Your task to perform on an android device: Search for pizza restaurants on Maps Image 0: 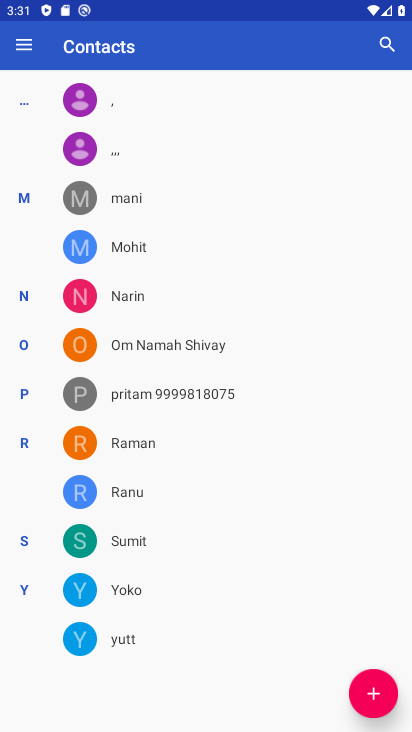
Step 0: press home button
Your task to perform on an android device: Search for pizza restaurants on Maps Image 1: 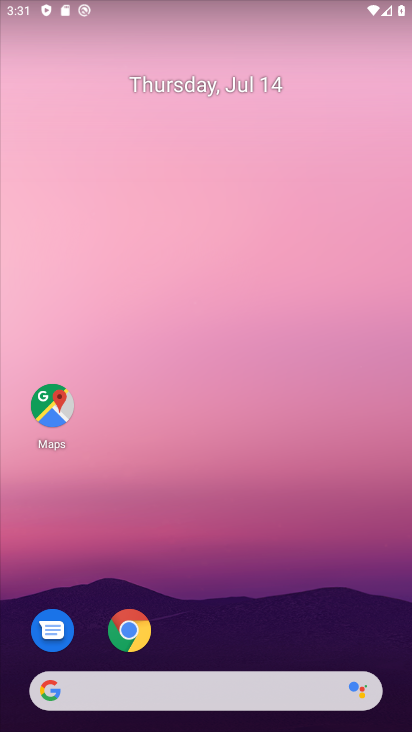
Step 1: drag from (224, 726) to (224, 218)
Your task to perform on an android device: Search for pizza restaurants on Maps Image 2: 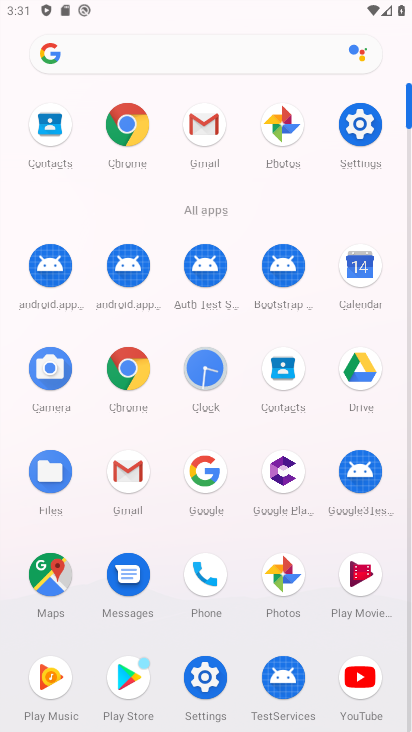
Step 2: click (48, 579)
Your task to perform on an android device: Search for pizza restaurants on Maps Image 3: 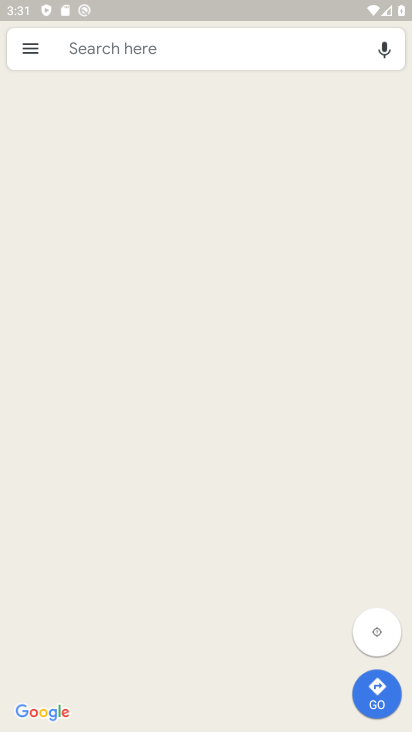
Step 3: click (223, 48)
Your task to perform on an android device: Search for pizza restaurants on Maps Image 4: 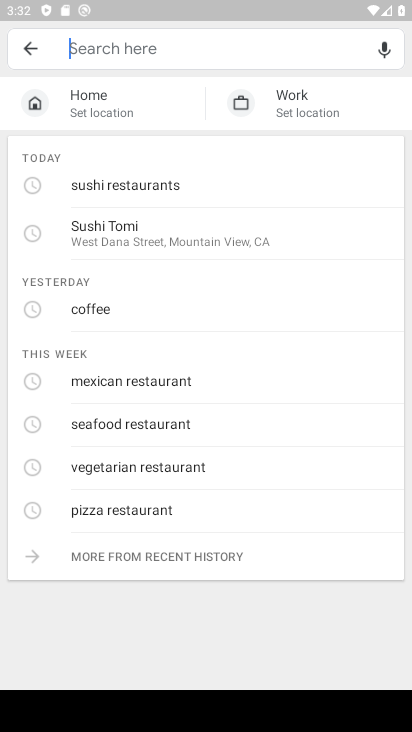
Step 4: type "pizza restaurants"
Your task to perform on an android device: Search for pizza restaurants on Maps Image 5: 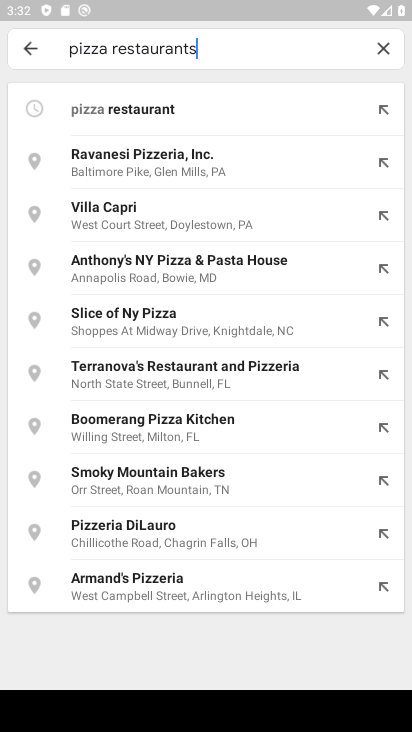
Step 5: click (94, 103)
Your task to perform on an android device: Search for pizza restaurants on Maps Image 6: 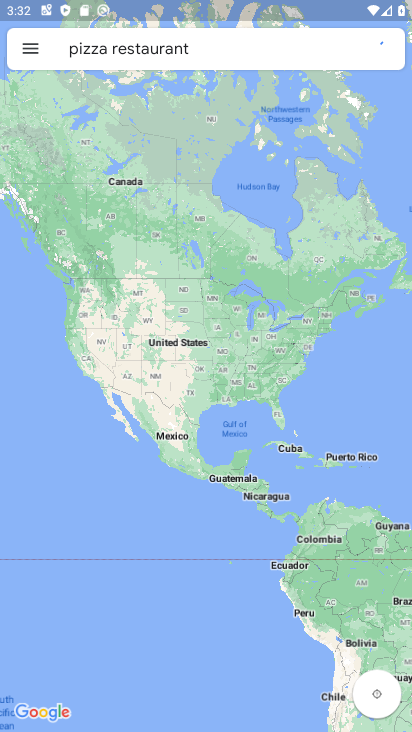
Step 6: task complete